Your task to perform on an android device: search for starred emails in the gmail app Image 0: 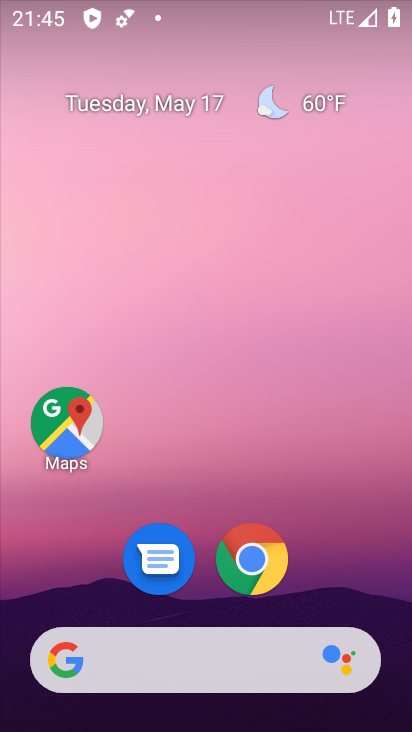
Step 0: drag from (344, 554) to (323, 149)
Your task to perform on an android device: search for starred emails in the gmail app Image 1: 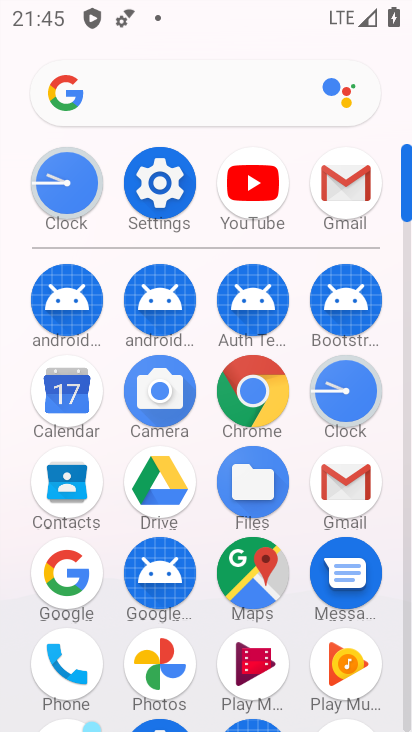
Step 1: click (366, 185)
Your task to perform on an android device: search for starred emails in the gmail app Image 2: 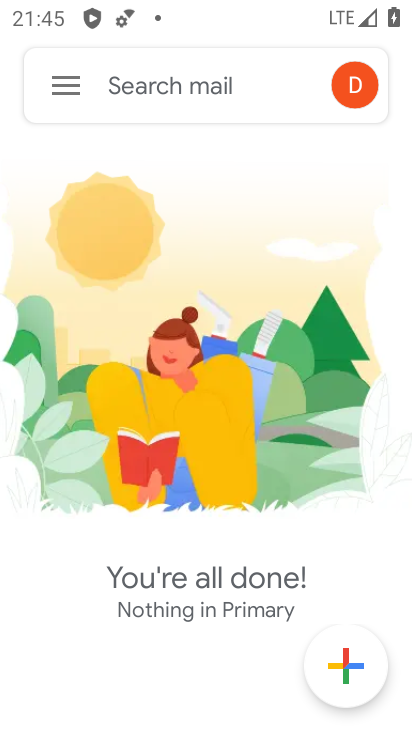
Step 2: click (59, 95)
Your task to perform on an android device: search for starred emails in the gmail app Image 3: 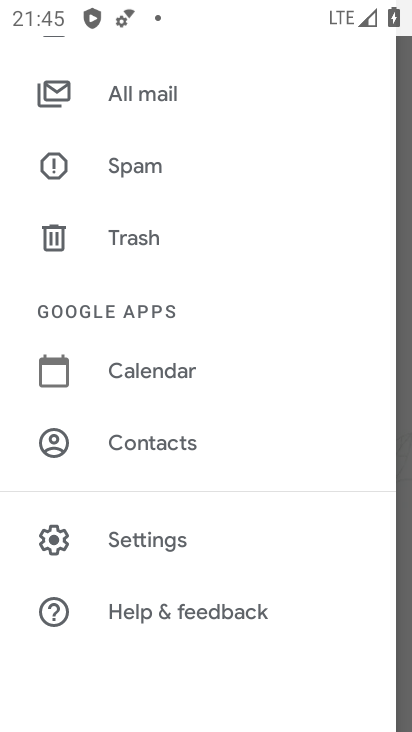
Step 3: drag from (171, 214) to (154, 611)
Your task to perform on an android device: search for starred emails in the gmail app Image 4: 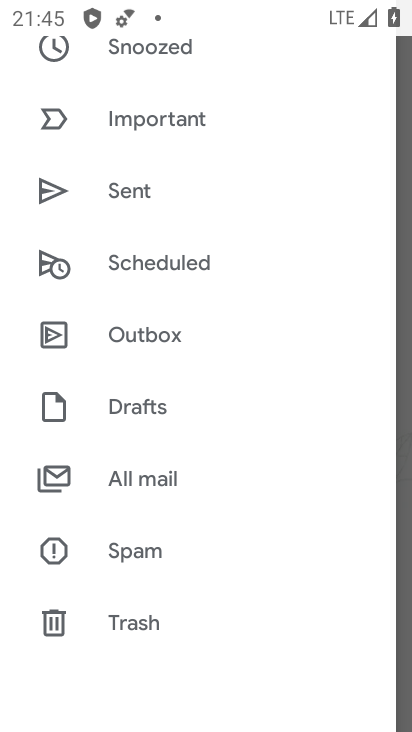
Step 4: drag from (169, 153) to (154, 495)
Your task to perform on an android device: search for starred emails in the gmail app Image 5: 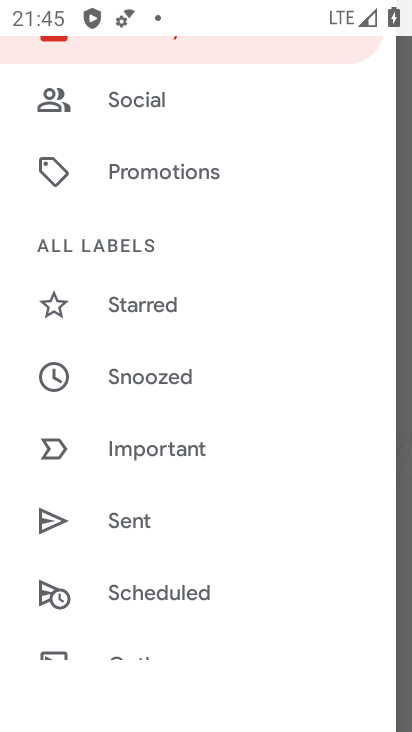
Step 5: click (153, 302)
Your task to perform on an android device: search for starred emails in the gmail app Image 6: 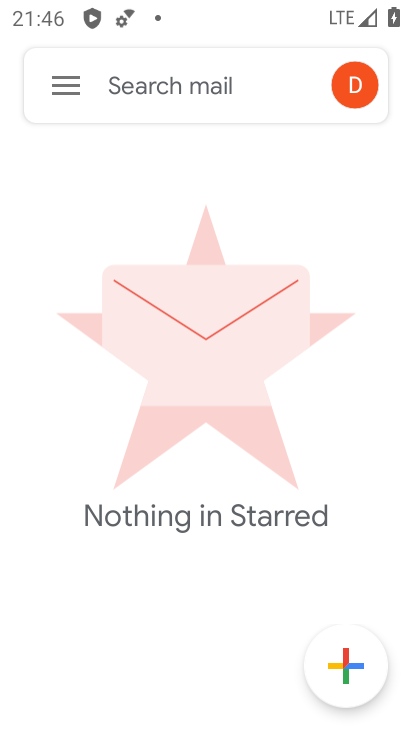
Step 6: task complete